Your task to perform on an android device: Open calendar and show me the first week of next month Image 0: 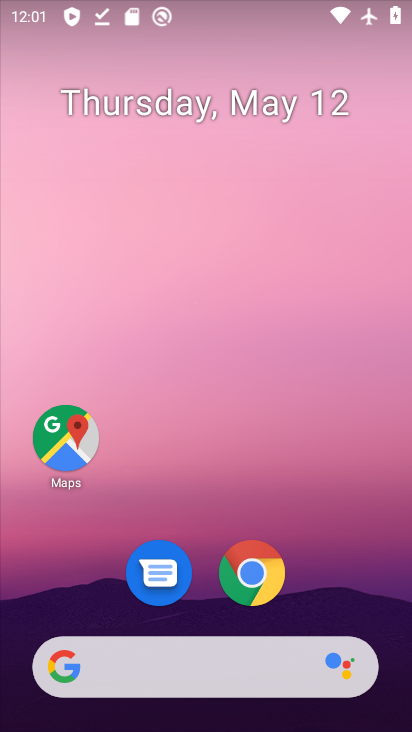
Step 0: drag from (330, 502) to (329, 289)
Your task to perform on an android device: Open calendar and show me the first week of next month Image 1: 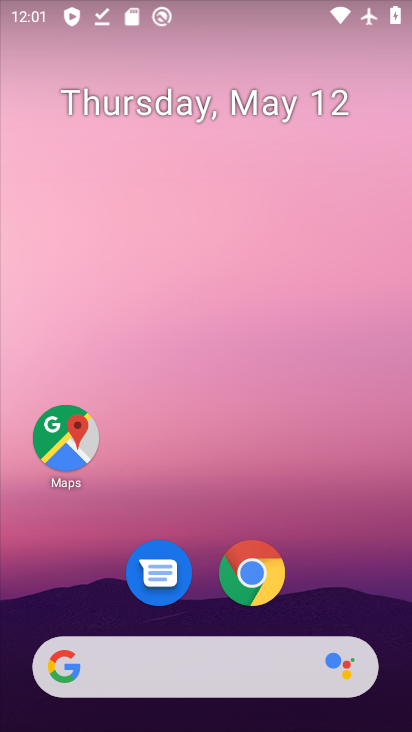
Step 1: drag from (297, 559) to (306, 179)
Your task to perform on an android device: Open calendar and show me the first week of next month Image 2: 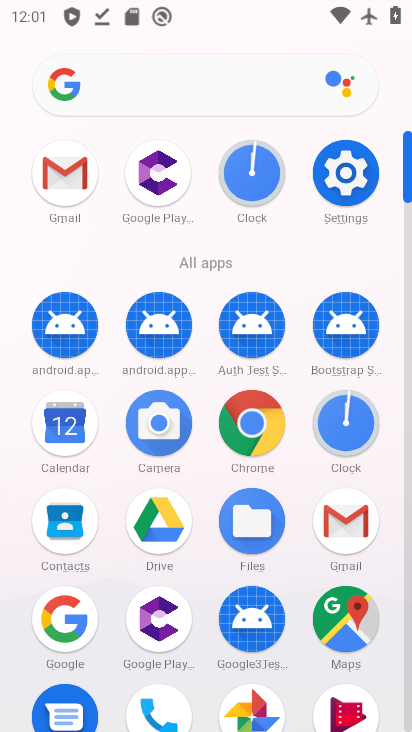
Step 2: click (62, 437)
Your task to perform on an android device: Open calendar and show me the first week of next month Image 3: 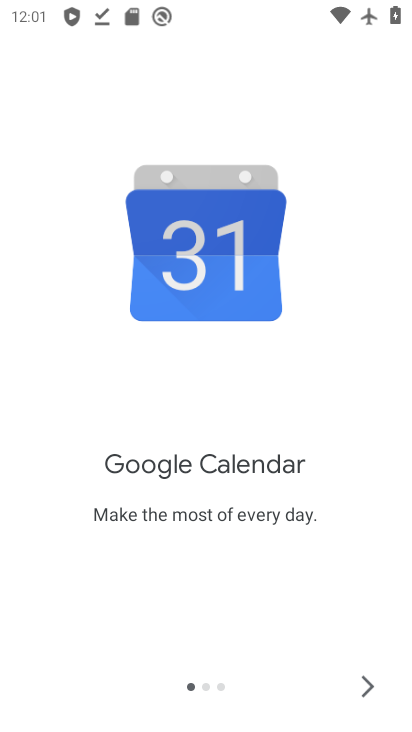
Step 3: click (360, 691)
Your task to perform on an android device: Open calendar and show me the first week of next month Image 4: 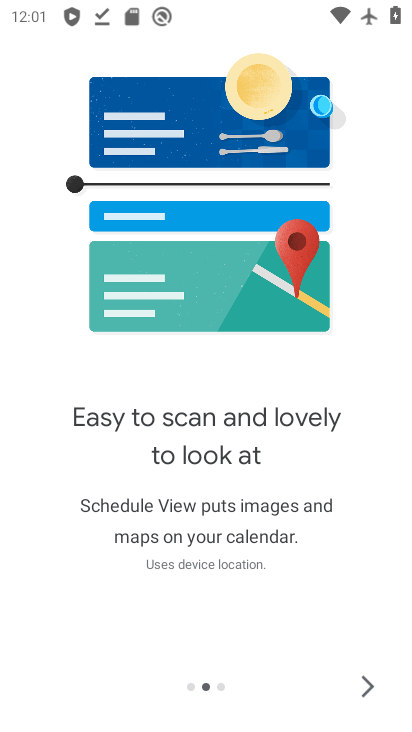
Step 4: click (362, 691)
Your task to perform on an android device: Open calendar and show me the first week of next month Image 5: 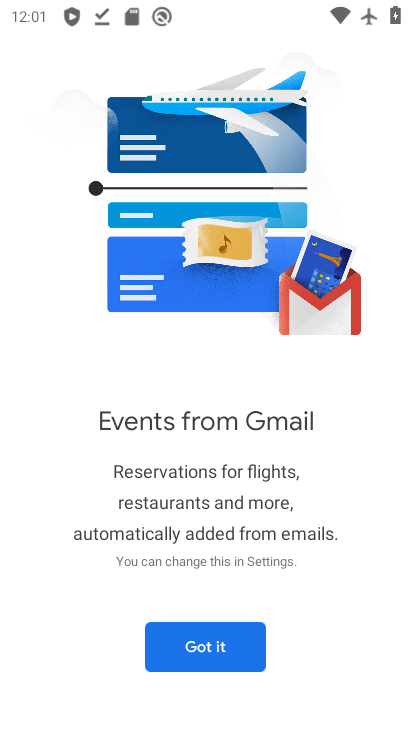
Step 5: click (200, 650)
Your task to perform on an android device: Open calendar and show me the first week of next month Image 6: 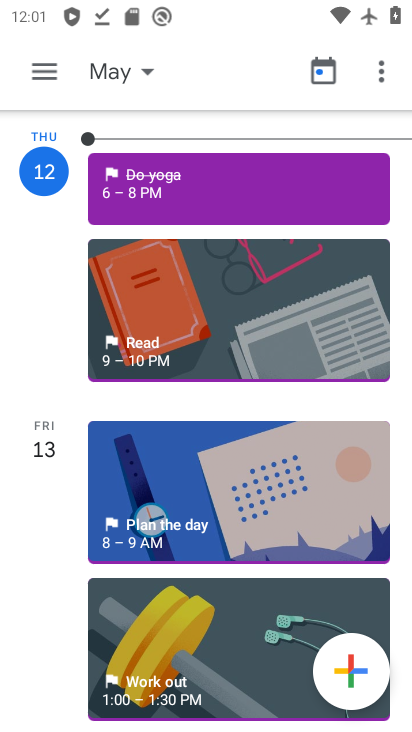
Step 6: click (141, 77)
Your task to perform on an android device: Open calendar and show me the first week of next month Image 7: 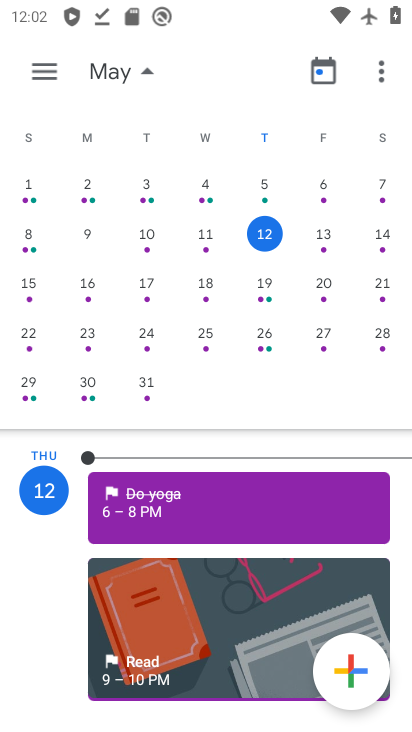
Step 7: drag from (362, 338) to (1, 331)
Your task to perform on an android device: Open calendar and show me the first week of next month Image 8: 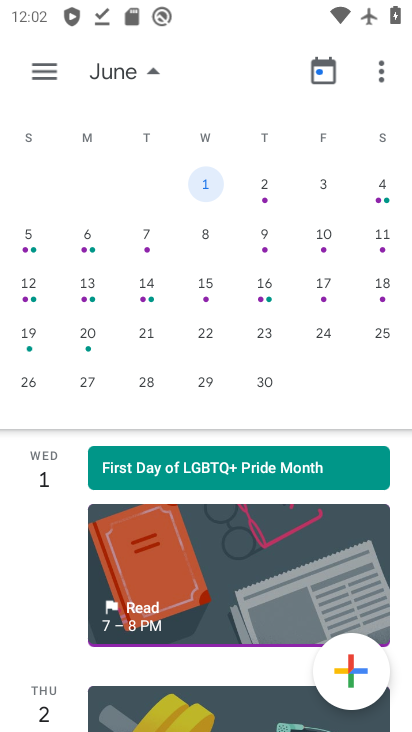
Step 8: click (270, 201)
Your task to perform on an android device: Open calendar and show me the first week of next month Image 9: 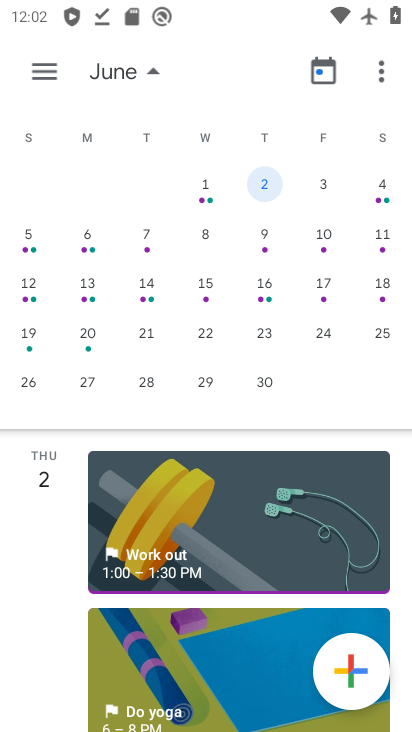
Step 9: click (318, 199)
Your task to perform on an android device: Open calendar and show me the first week of next month Image 10: 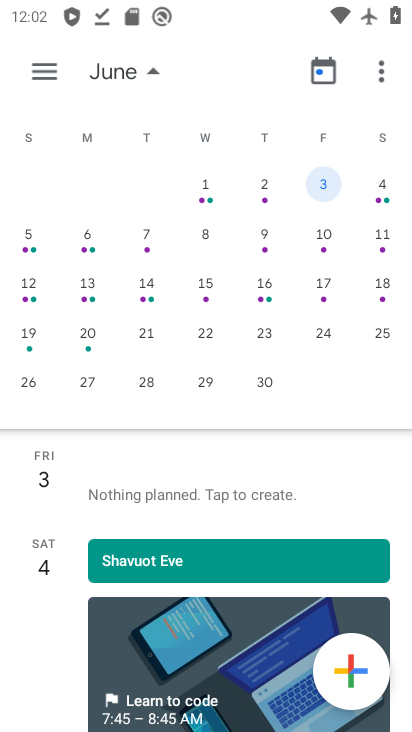
Step 10: click (378, 198)
Your task to perform on an android device: Open calendar and show me the first week of next month Image 11: 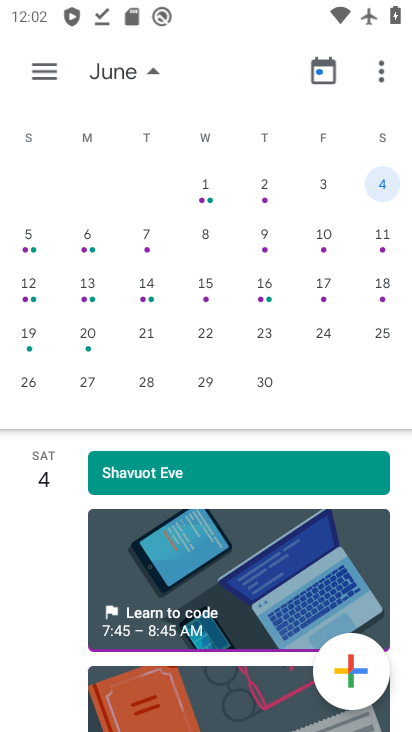
Step 11: task complete